Your task to perform on an android device: toggle wifi Image 0: 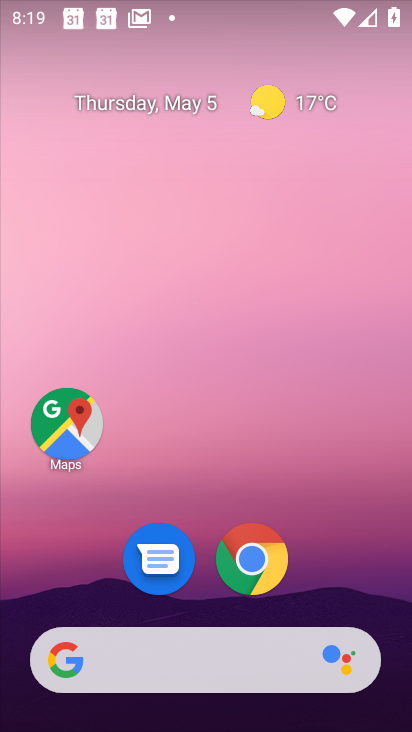
Step 0: drag from (375, 615) to (346, 7)
Your task to perform on an android device: toggle wifi Image 1: 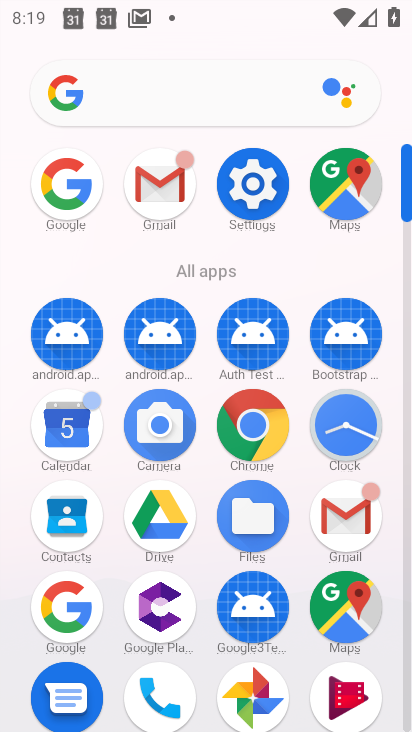
Step 1: click (251, 190)
Your task to perform on an android device: toggle wifi Image 2: 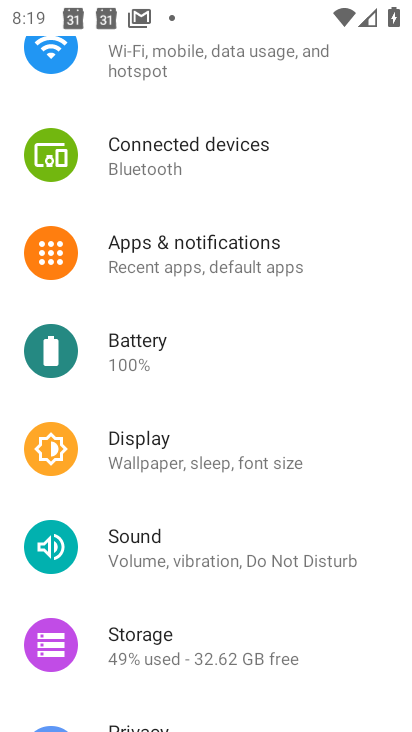
Step 2: drag from (372, 229) to (411, 441)
Your task to perform on an android device: toggle wifi Image 3: 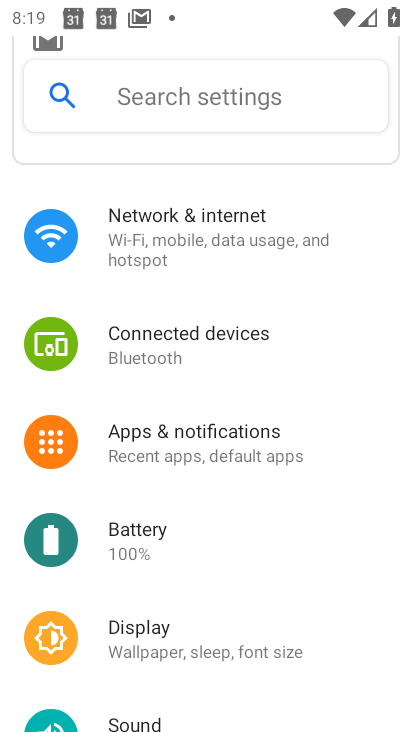
Step 3: click (166, 236)
Your task to perform on an android device: toggle wifi Image 4: 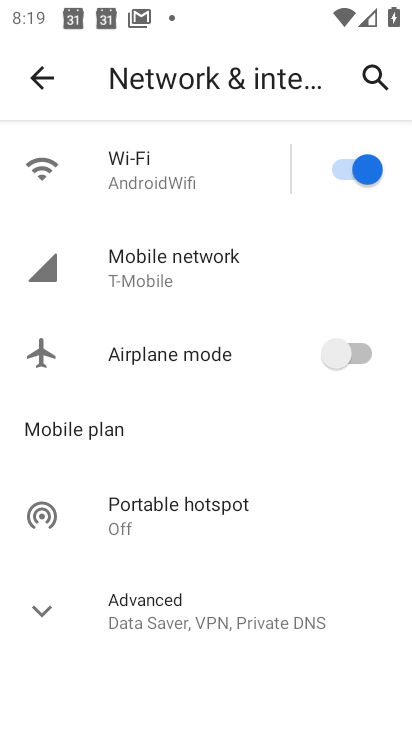
Step 4: click (351, 179)
Your task to perform on an android device: toggle wifi Image 5: 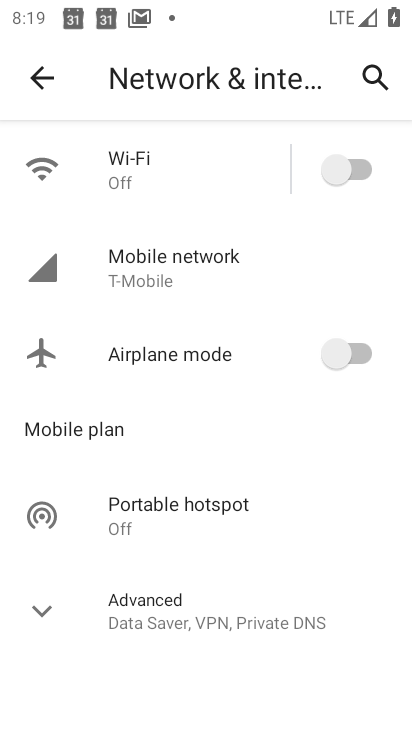
Step 5: task complete